Your task to perform on an android device: Go to Amazon Image 0: 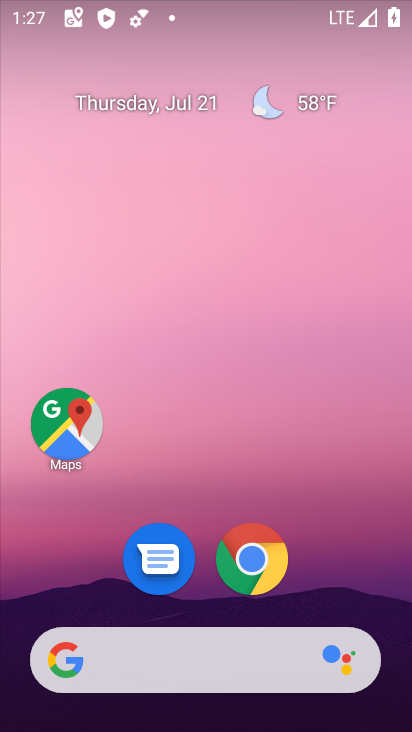
Step 0: drag from (369, 571) to (387, 90)
Your task to perform on an android device: Go to Amazon Image 1: 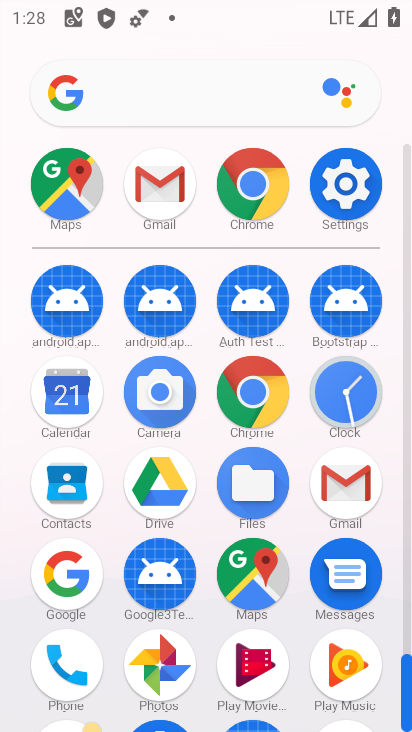
Step 1: click (264, 379)
Your task to perform on an android device: Go to Amazon Image 2: 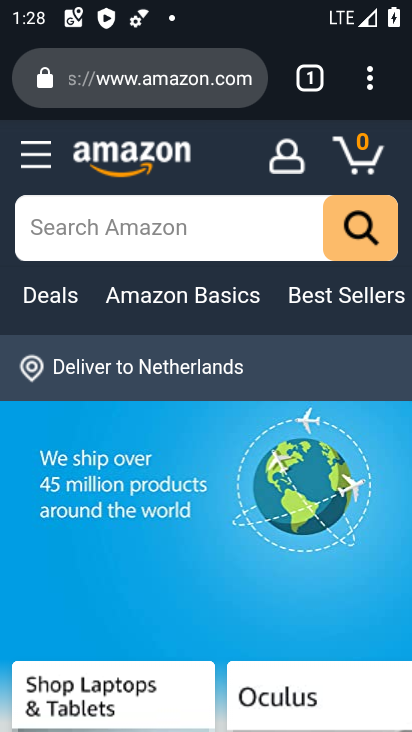
Step 2: task complete